Your task to perform on an android device: snooze an email in the gmail app Image 0: 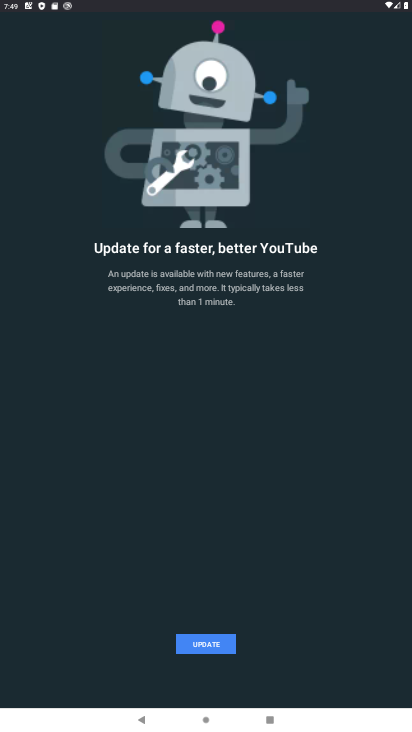
Step 0: press home button
Your task to perform on an android device: snooze an email in the gmail app Image 1: 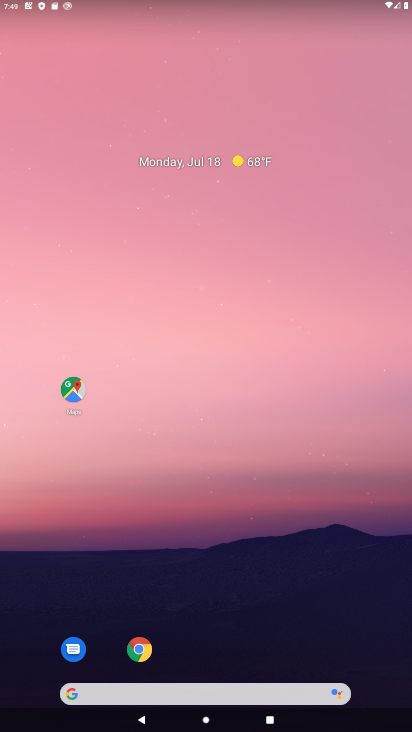
Step 1: drag from (221, 722) to (253, 257)
Your task to perform on an android device: snooze an email in the gmail app Image 2: 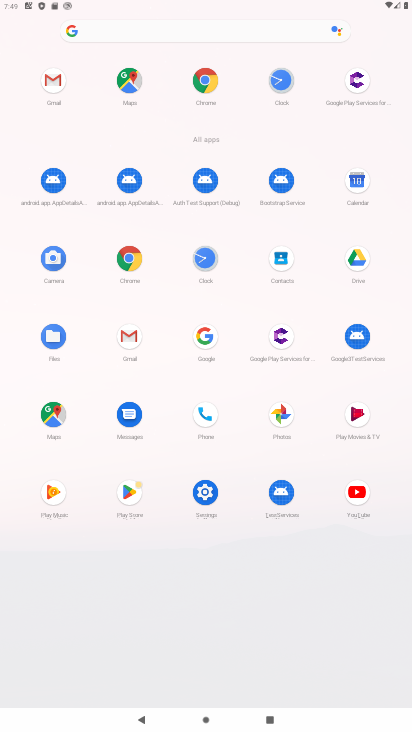
Step 2: click (134, 333)
Your task to perform on an android device: snooze an email in the gmail app Image 3: 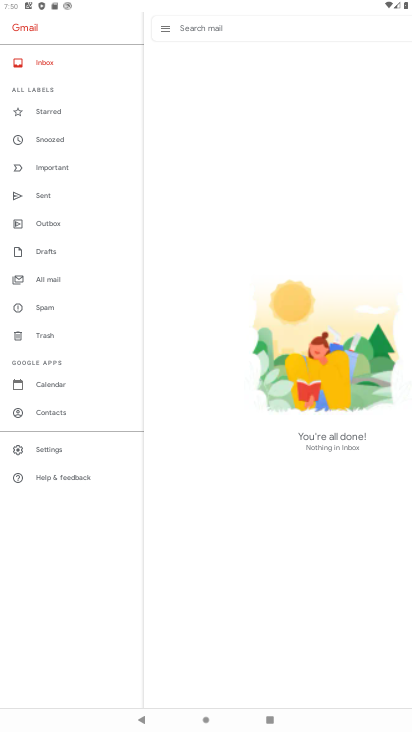
Step 3: task complete